Your task to perform on an android device: Open privacy settings Image 0: 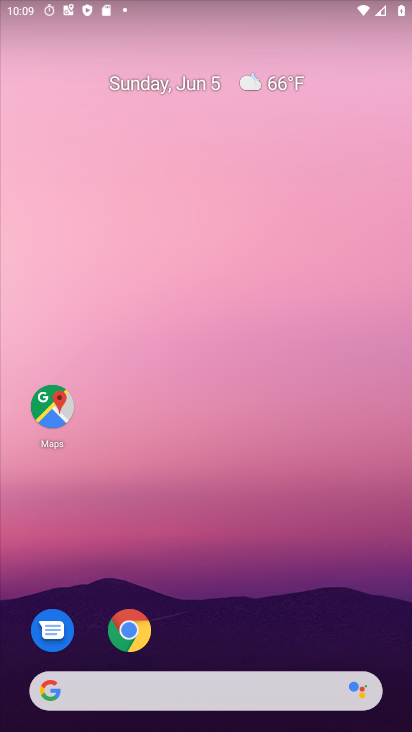
Step 0: drag from (246, 729) to (255, 0)
Your task to perform on an android device: Open privacy settings Image 1: 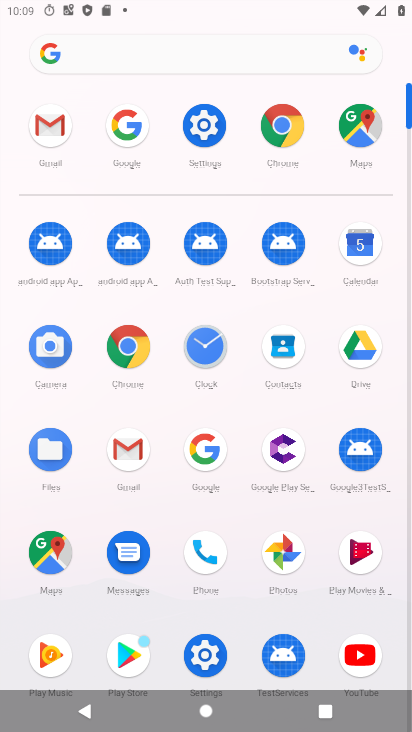
Step 1: click (204, 112)
Your task to perform on an android device: Open privacy settings Image 2: 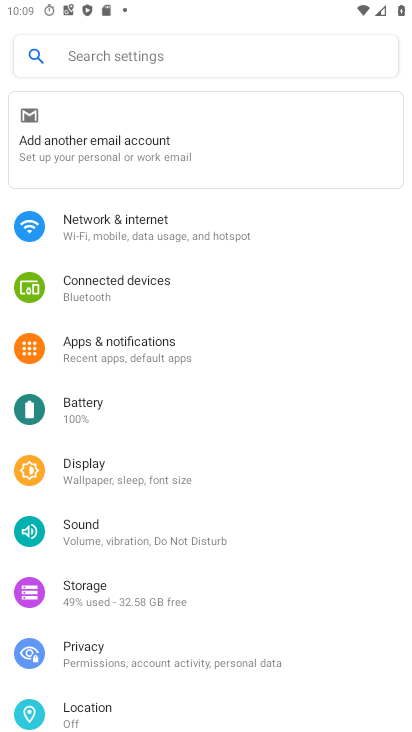
Step 2: click (101, 656)
Your task to perform on an android device: Open privacy settings Image 3: 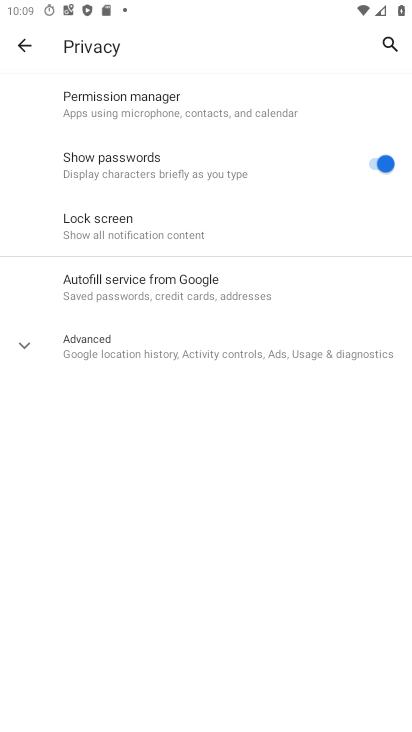
Step 3: task complete